Your task to perform on an android device: Open Wikipedia Image 0: 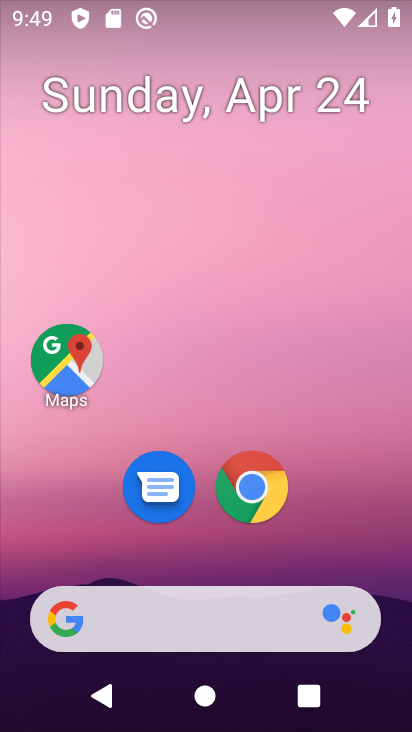
Step 0: drag from (323, 541) to (311, 138)
Your task to perform on an android device: Open Wikipedia Image 1: 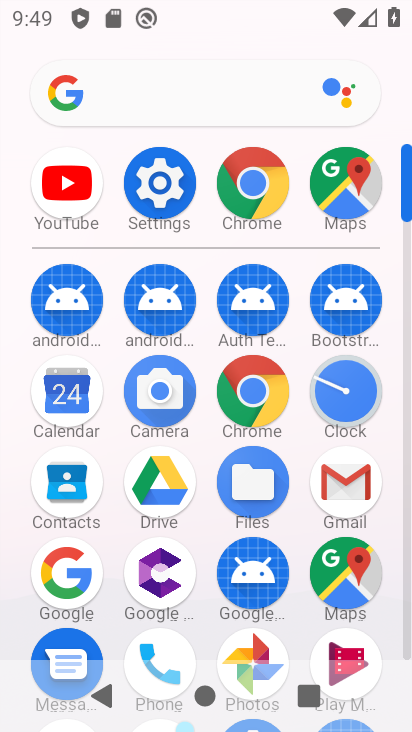
Step 1: click (260, 396)
Your task to perform on an android device: Open Wikipedia Image 2: 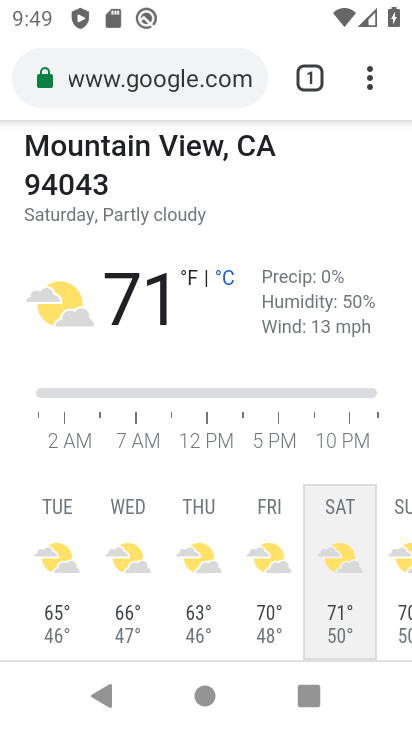
Step 2: drag from (371, 82) to (101, 157)
Your task to perform on an android device: Open Wikipedia Image 3: 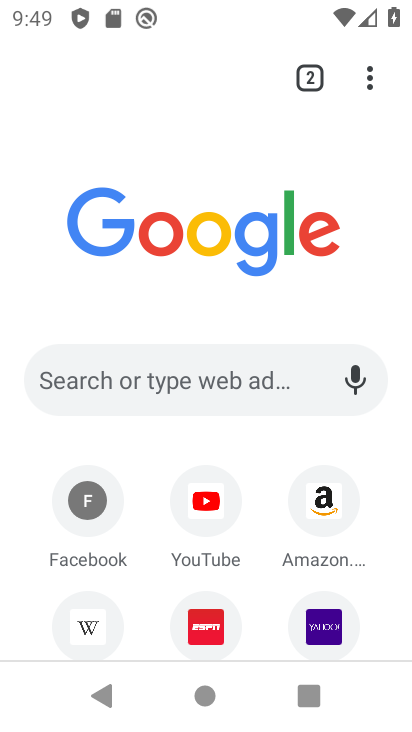
Step 3: drag from (203, 303) to (220, 27)
Your task to perform on an android device: Open Wikipedia Image 4: 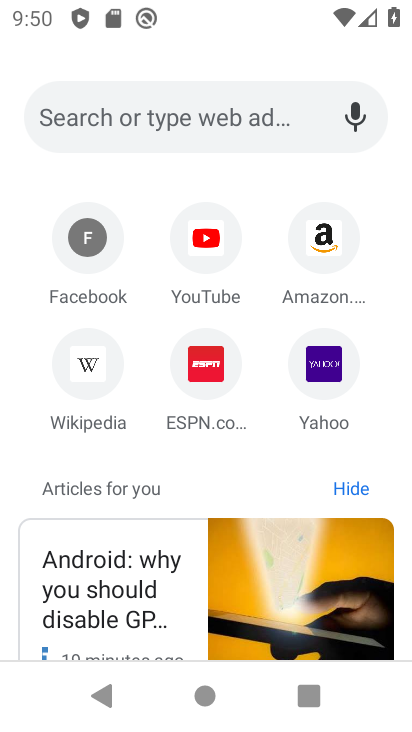
Step 4: click (91, 357)
Your task to perform on an android device: Open Wikipedia Image 5: 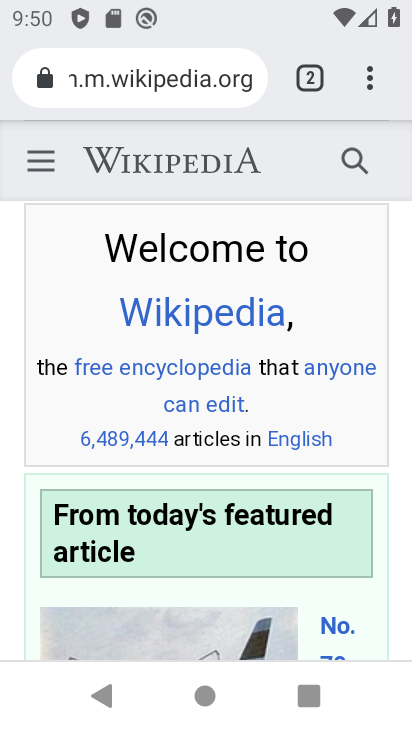
Step 5: task complete